Your task to perform on an android device: Show me popular videos on Youtube Image 0: 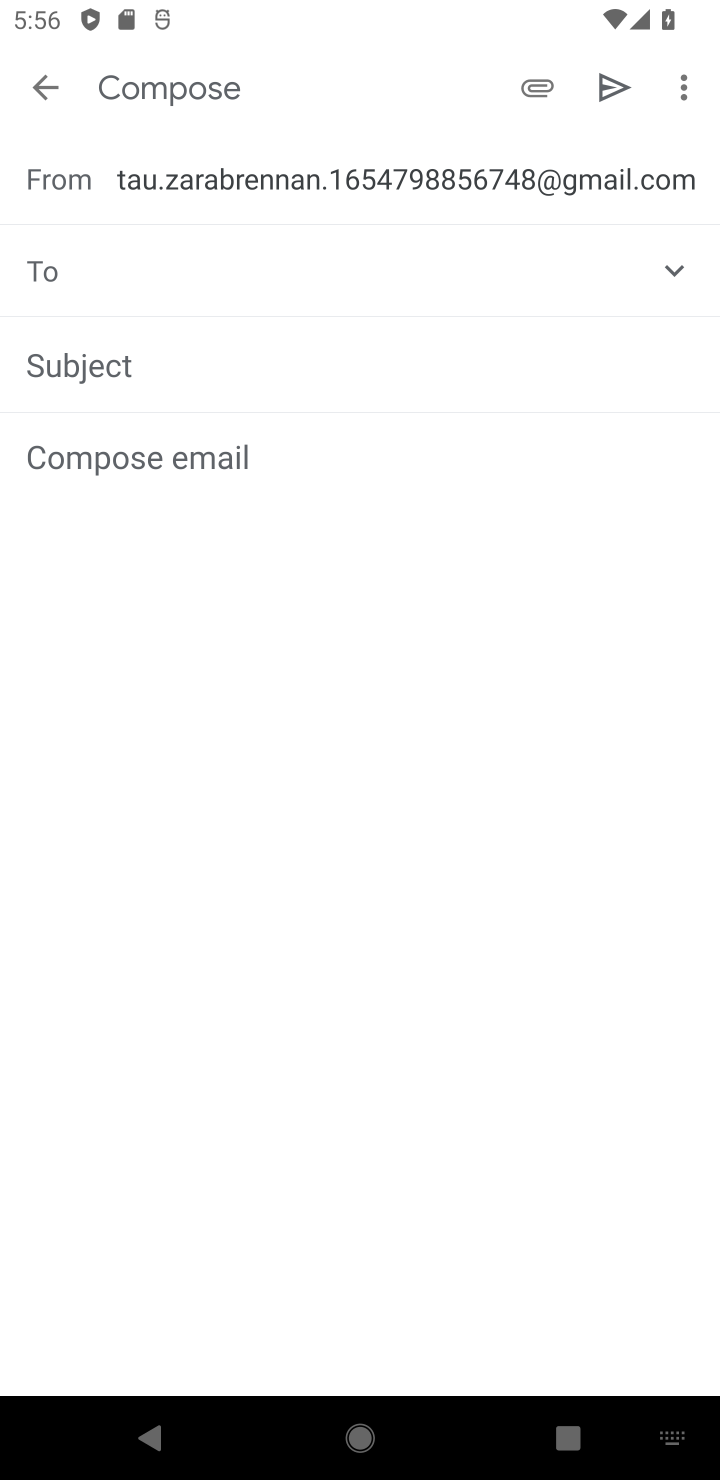
Step 0: press home button
Your task to perform on an android device: Show me popular videos on Youtube Image 1: 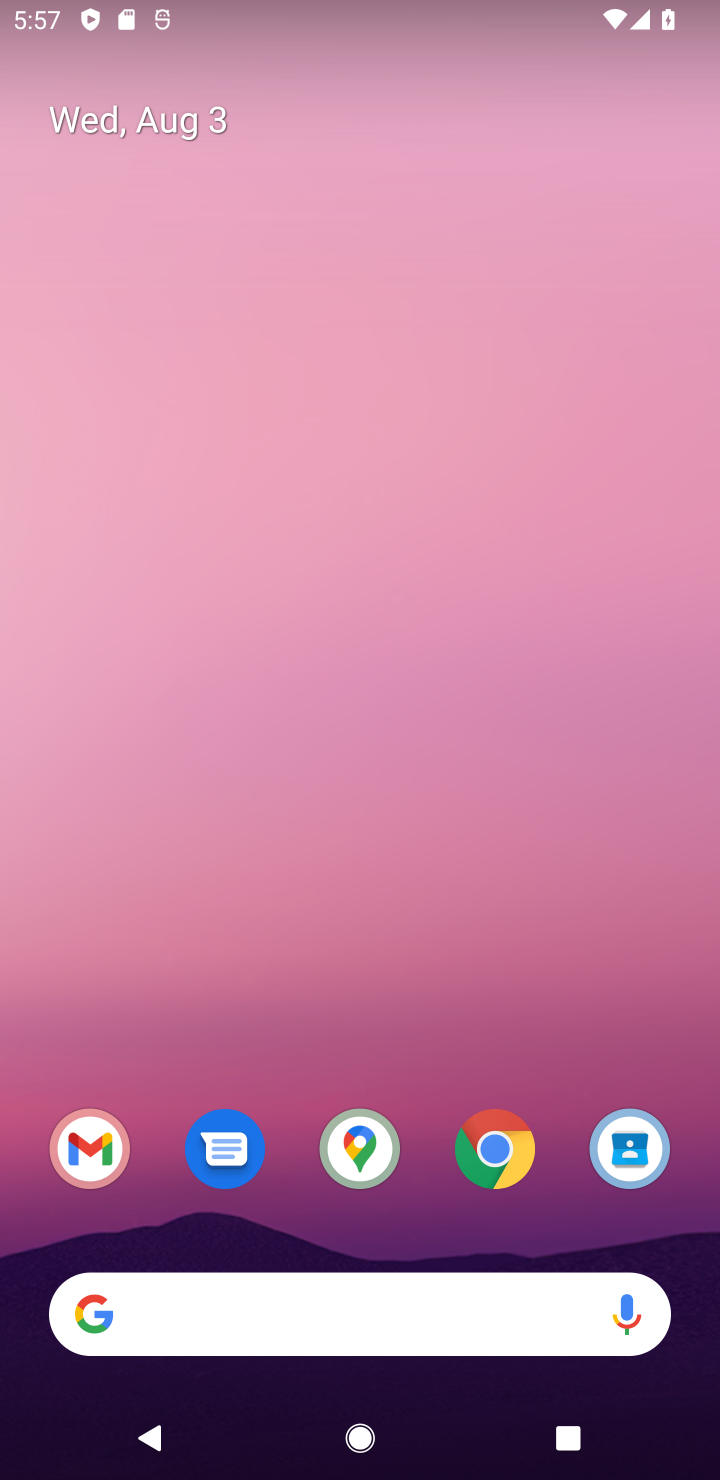
Step 1: drag from (360, 1337) to (362, 156)
Your task to perform on an android device: Show me popular videos on Youtube Image 2: 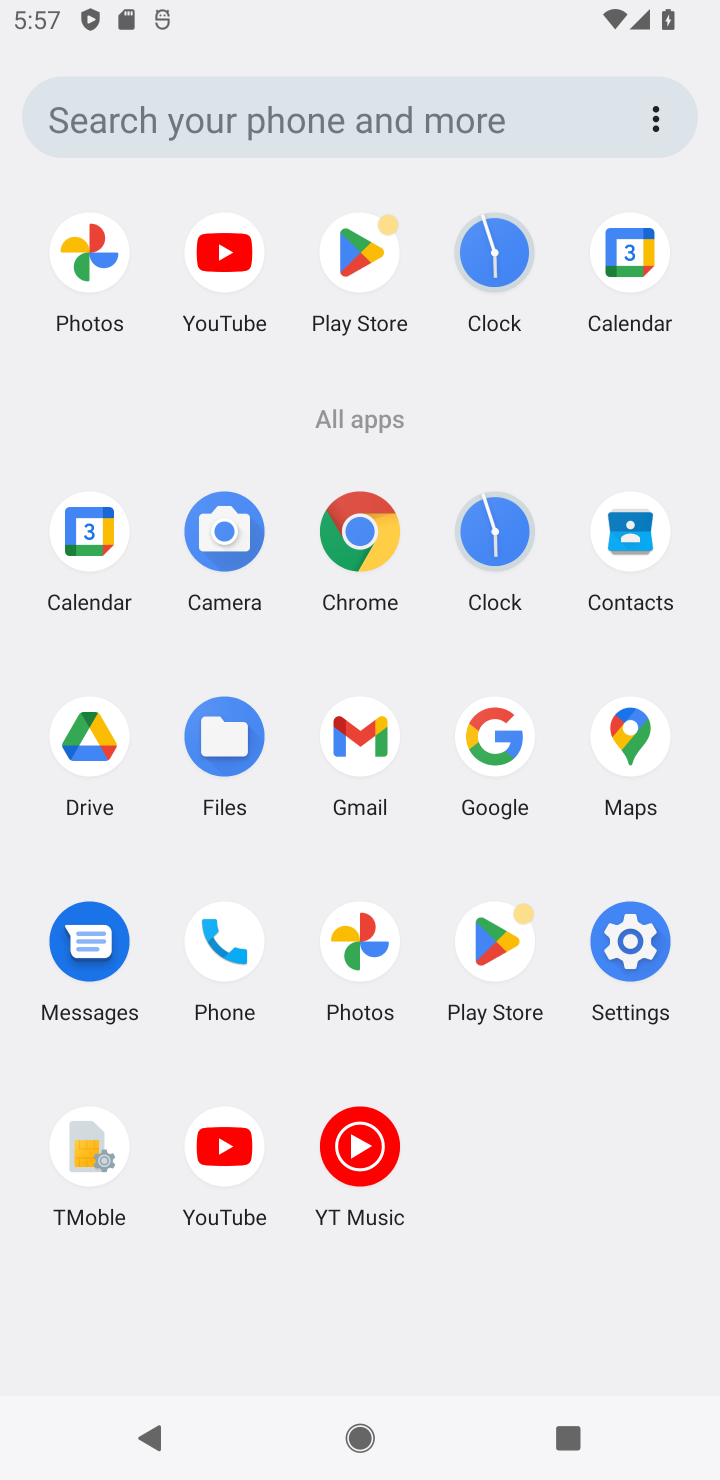
Step 2: click (217, 1141)
Your task to perform on an android device: Show me popular videos on Youtube Image 3: 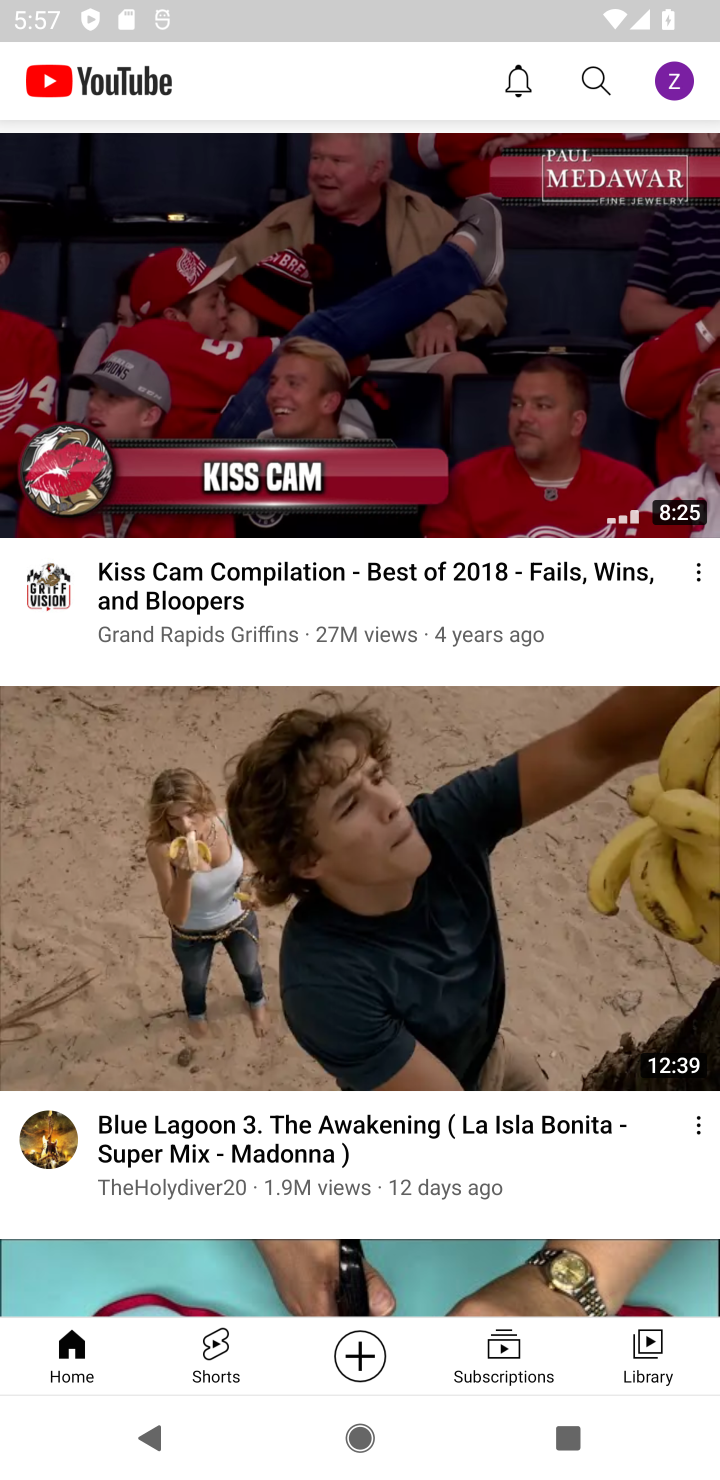
Step 3: drag from (295, 983) to (310, 1088)
Your task to perform on an android device: Show me popular videos on Youtube Image 4: 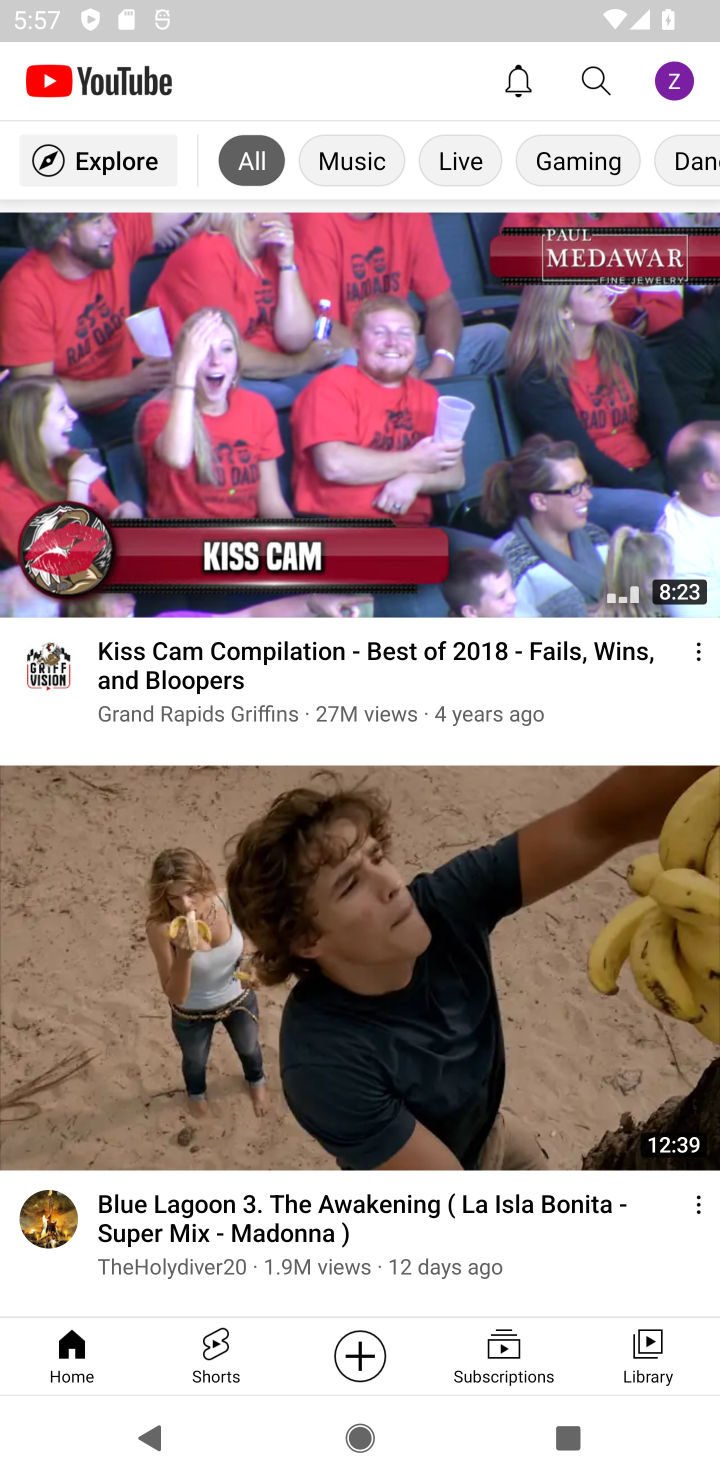
Step 4: click (105, 147)
Your task to perform on an android device: Show me popular videos on Youtube Image 5: 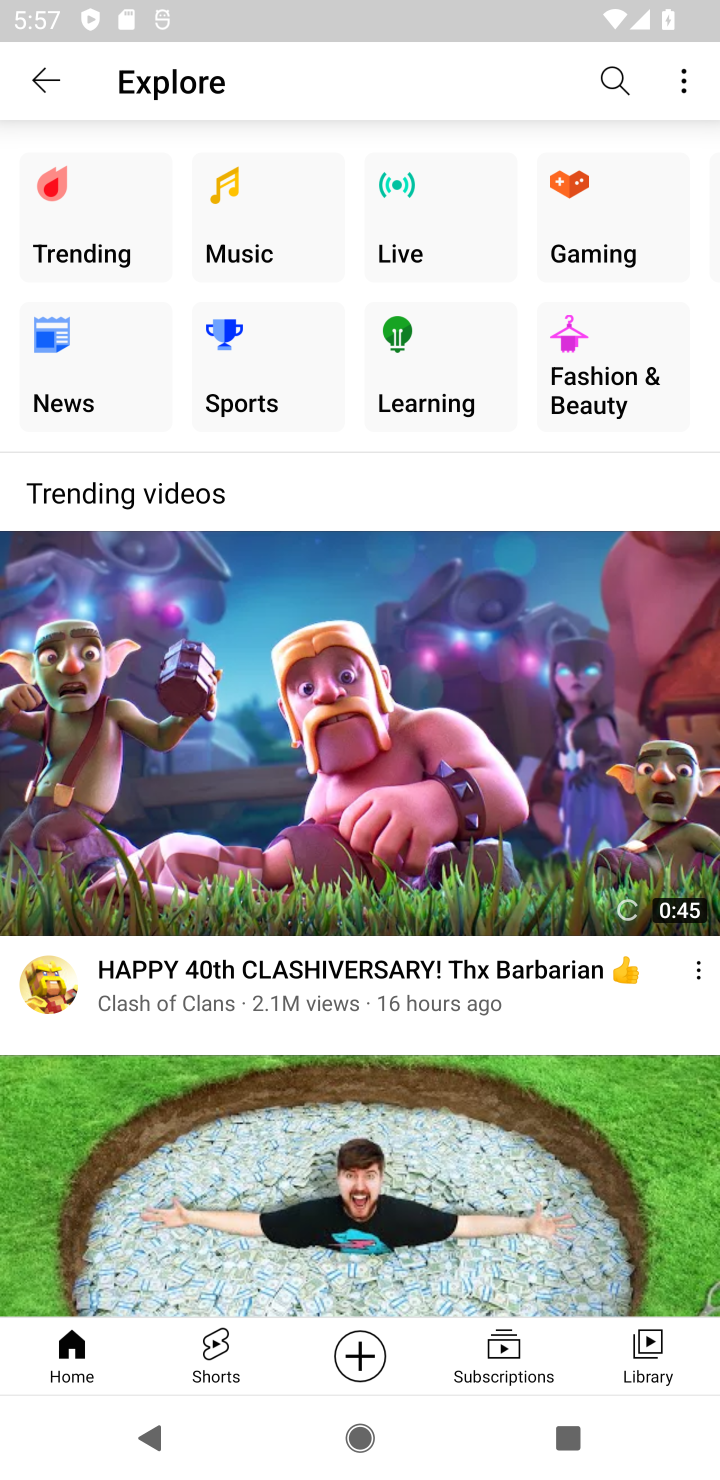
Step 5: click (78, 233)
Your task to perform on an android device: Show me popular videos on Youtube Image 6: 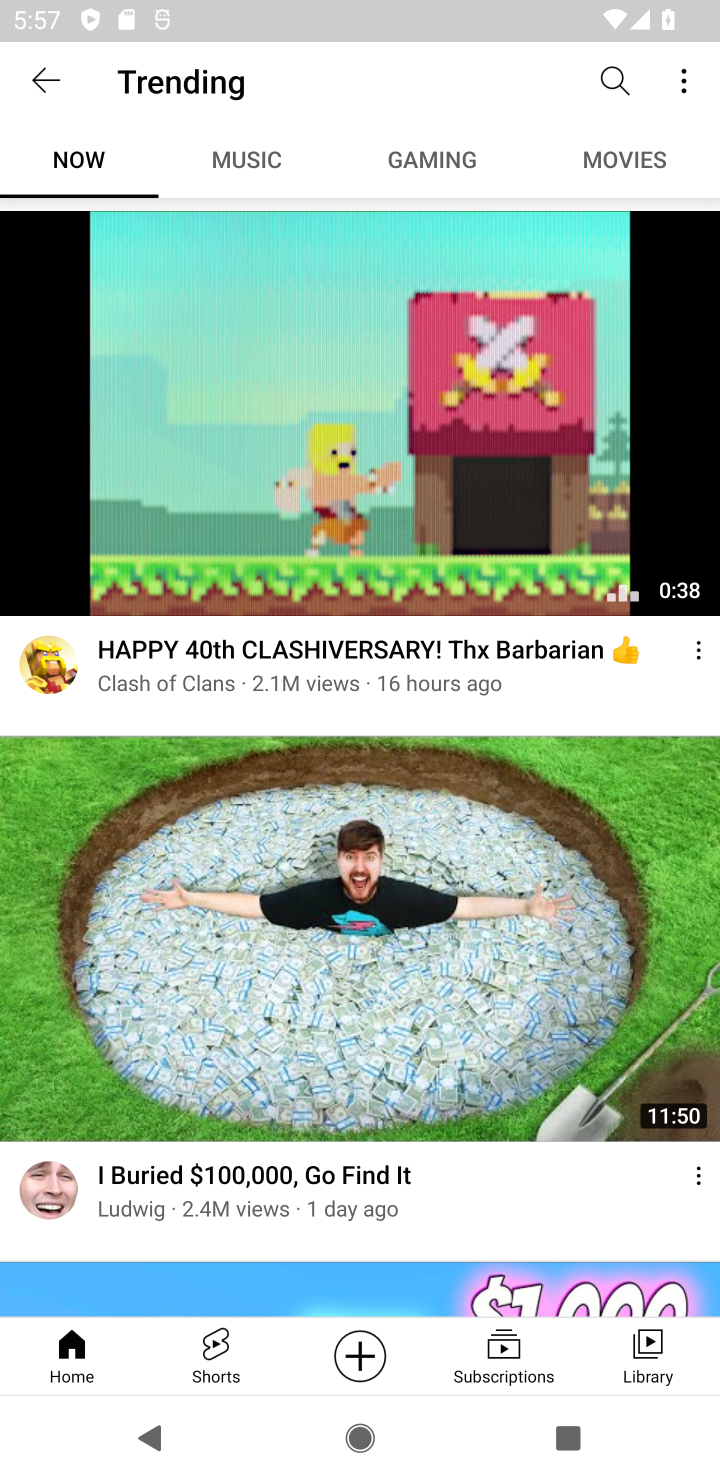
Step 6: task complete